Your task to perform on an android device: Search for the best books of all time on Goodreads Image 0: 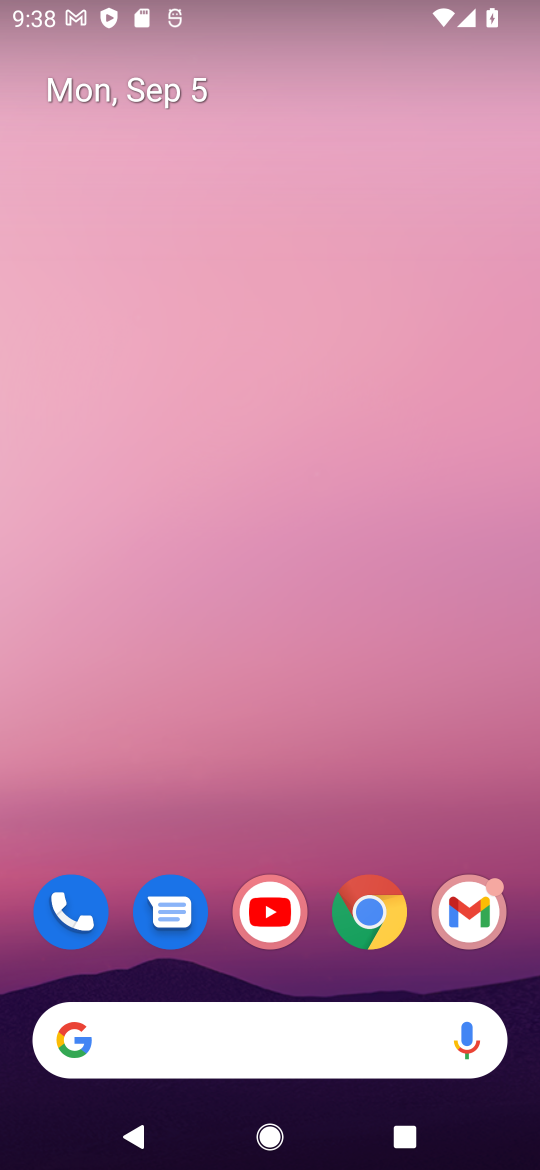
Step 0: click (540, 56)
Your task to perform on an android device: Search for the best books of all time on Goodreads Image 1: 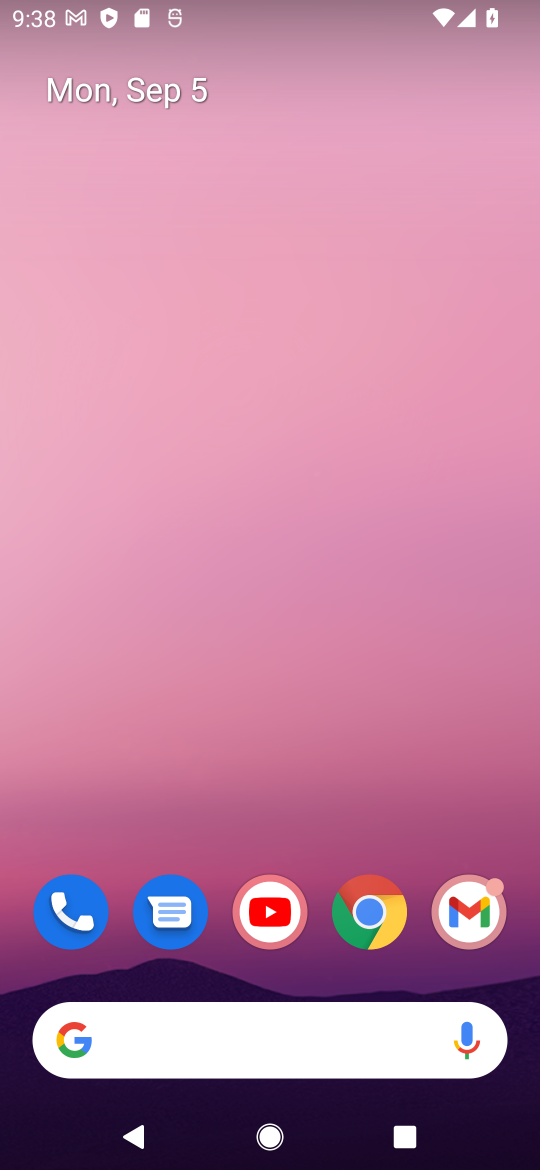
Step 1: click (368, 920)
Your task to perform on an android device: Search for the best books of all time on Goodreads Image 2: 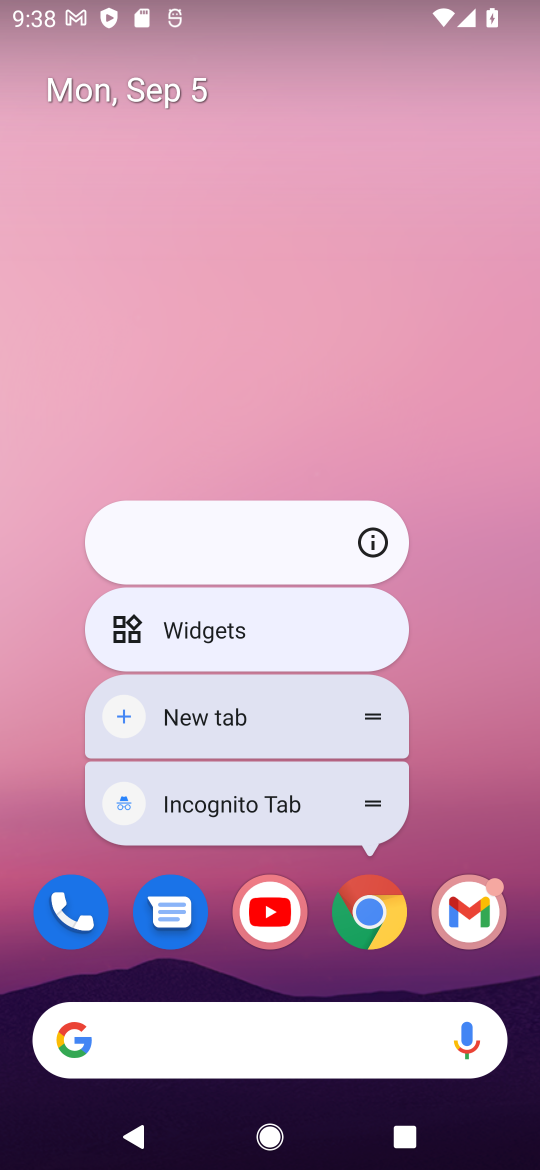
Step 2: click (368, 920)
Your task to perform on an android device: Search for the best books of all time on Goodreads Image 3: 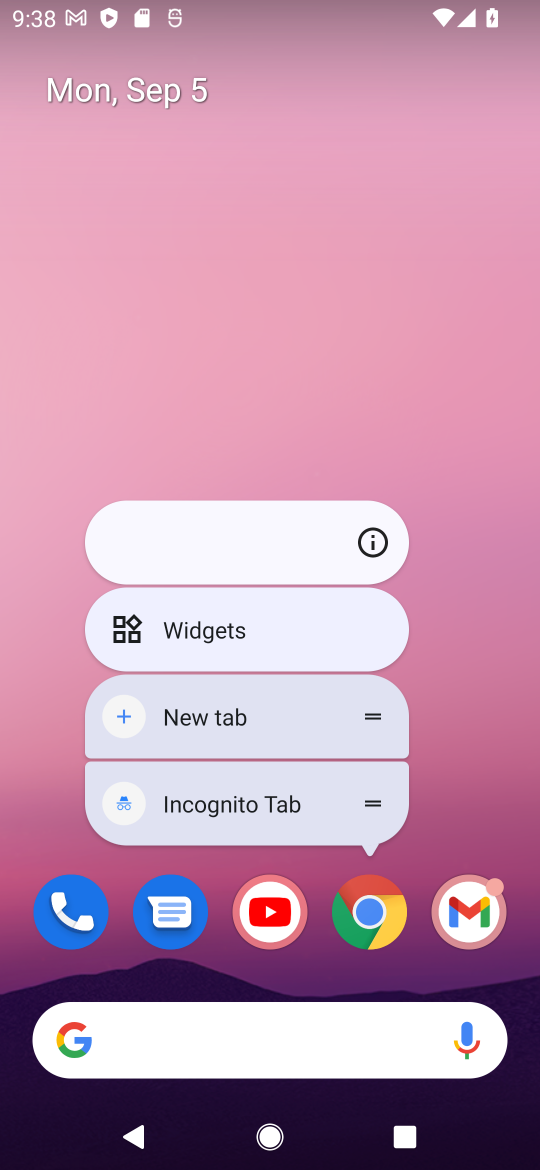
Step 3: click (368, 920)
Your task to perform on an android device: Search for the best books of all time on Goodreads Image 4: 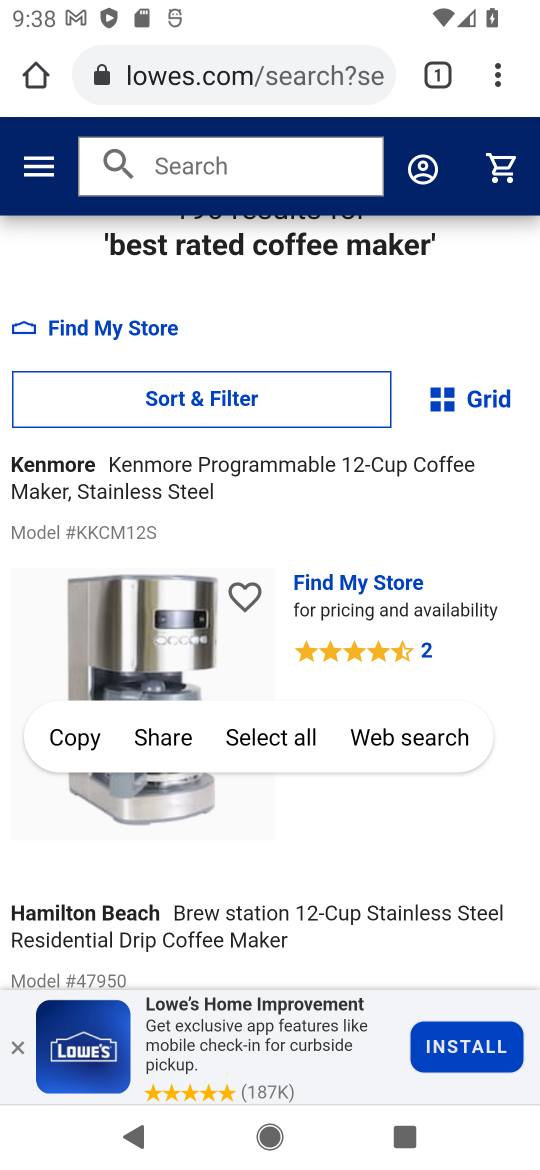
Step 4: click (191, 66)
Your task to perform on an android device: Search for the best books of all time on Goodreads Image 5: 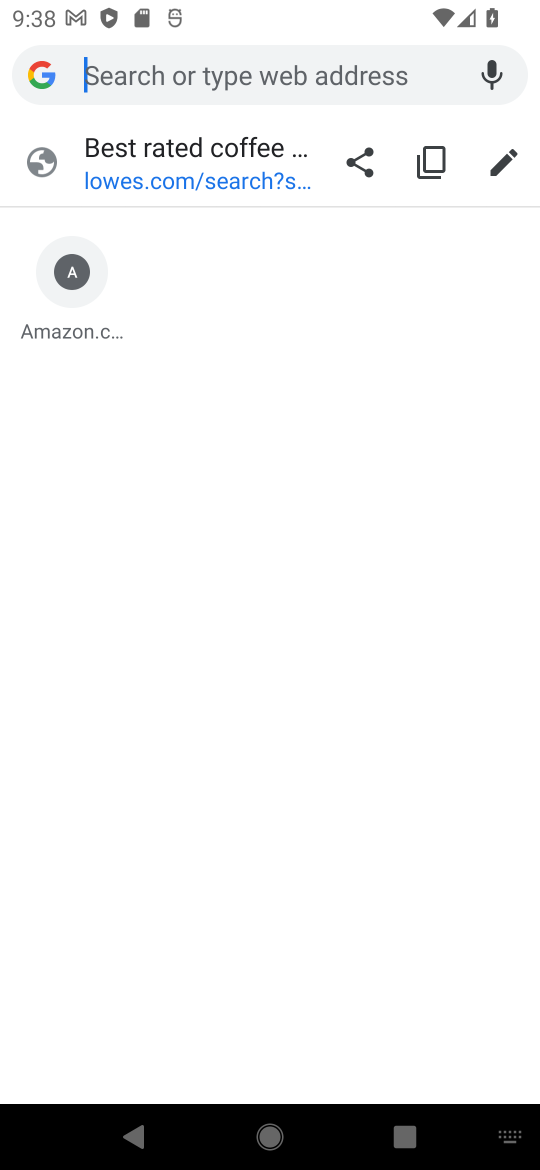
Step 5: type "goodreads"
Your task to perform on an android device: Search for the best books of all time on Goodreads Image 6: 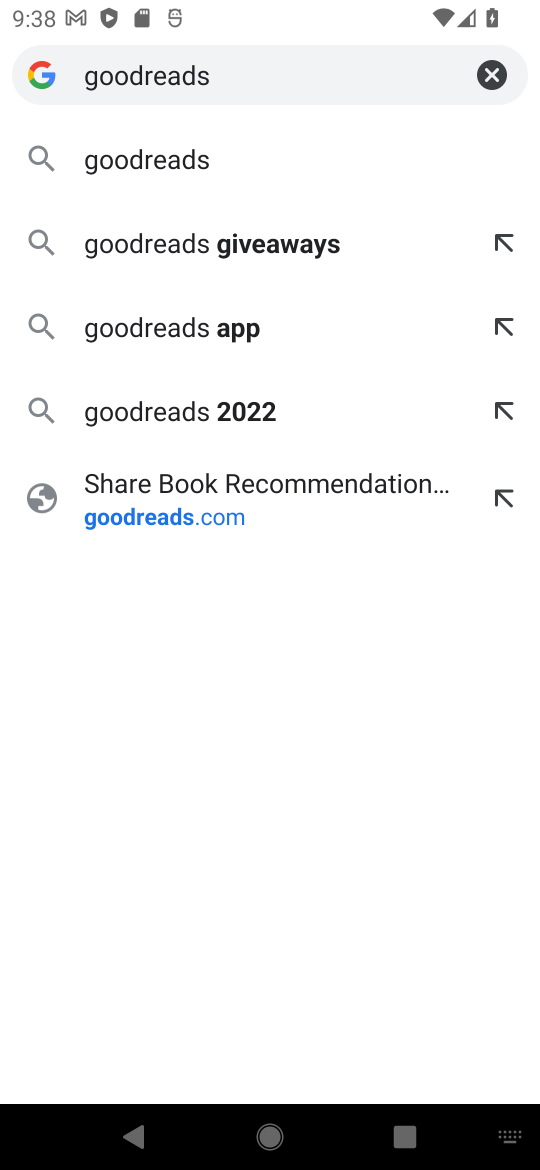
Step 6: click (95, 176)
Your task to perform on an android device: Search for the best books of all time on Goodreads Image 7: 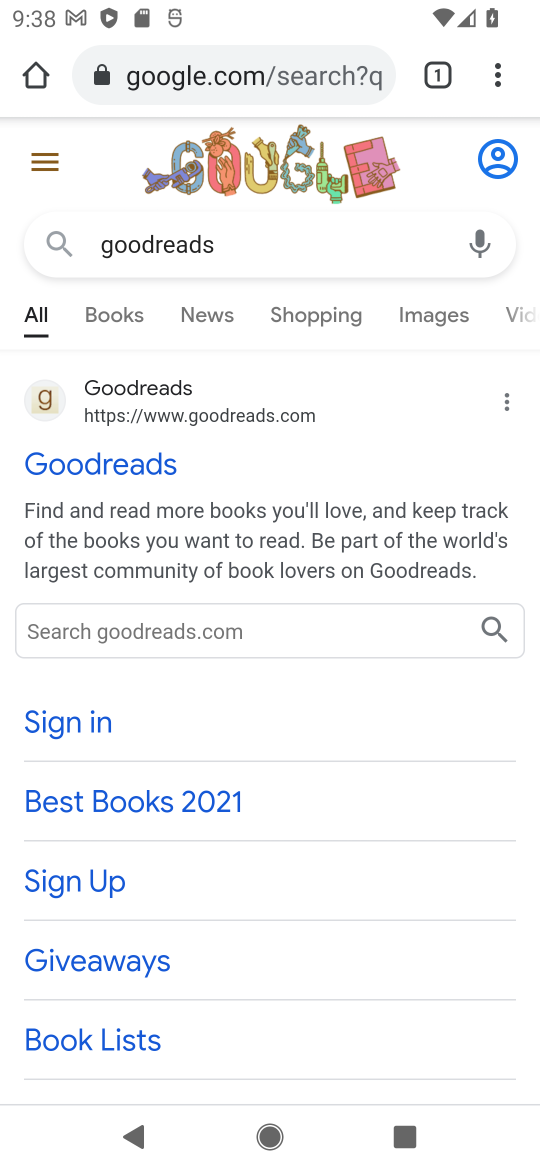
Step 7: drag from (438, 1161) to (483, 908)
Your task to perform on an android device: Search for the best books of all time on Goodreads Image 8: 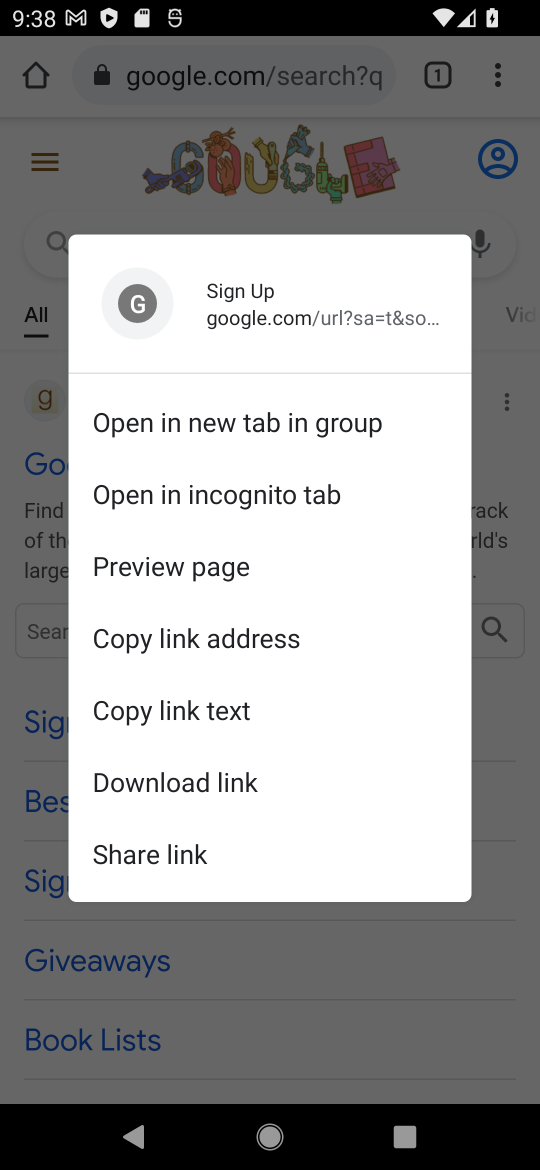
Step 8: click (496, 723)
Your task to perform on an android device: Search for the best books of all time on Goodreads Image 9: 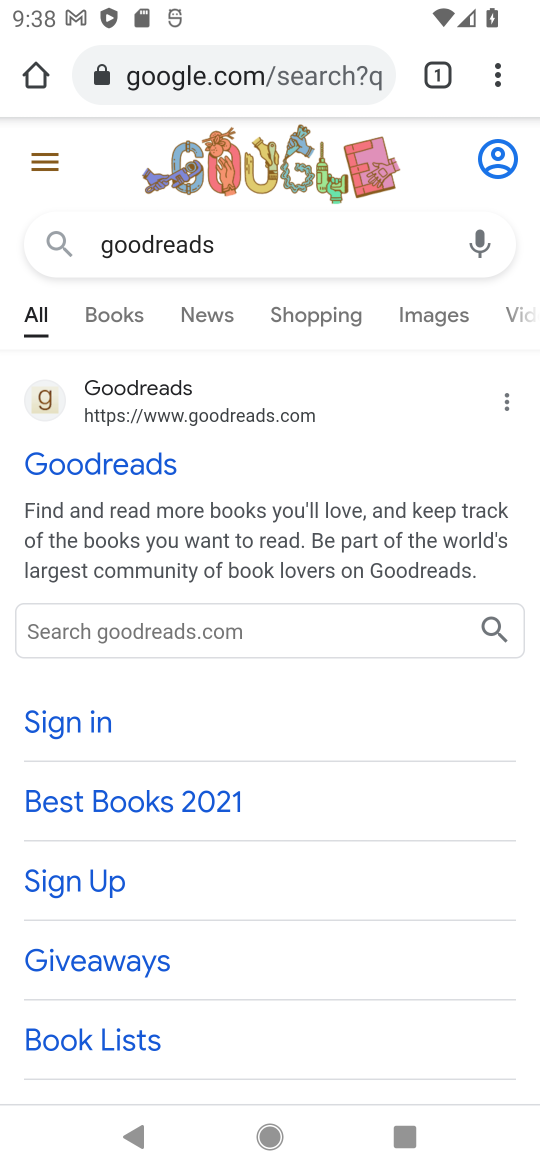
Step 9: click (75, 471)
Your task to perform on an android device: Search for the best books of all time on Goodreads Image 10: 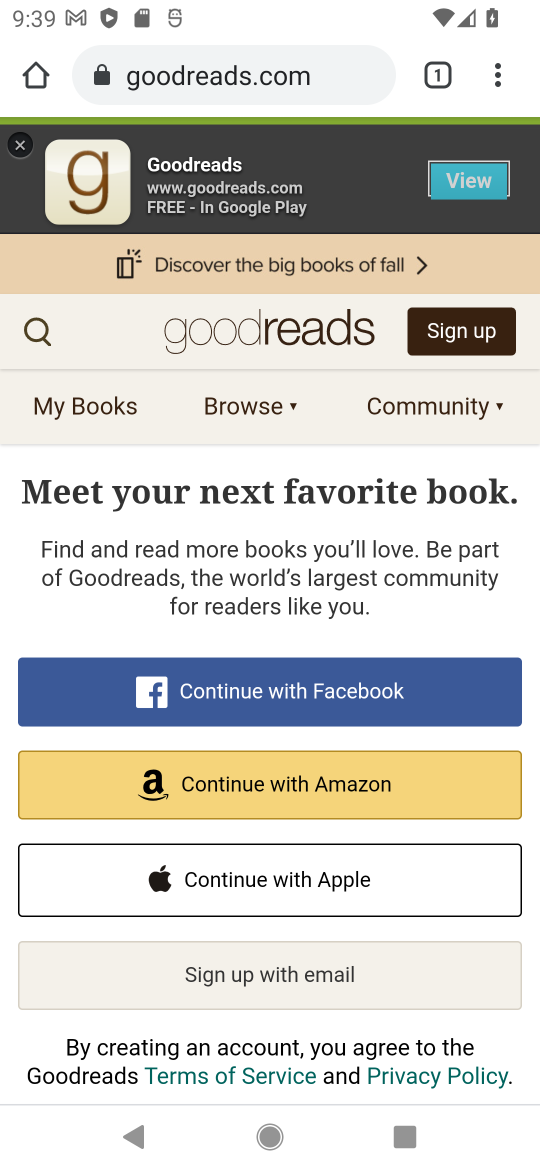
Step 10: click (40, 339)
Your task to perform on an android device: Search for the best books of all time on Goodreads Image 11: 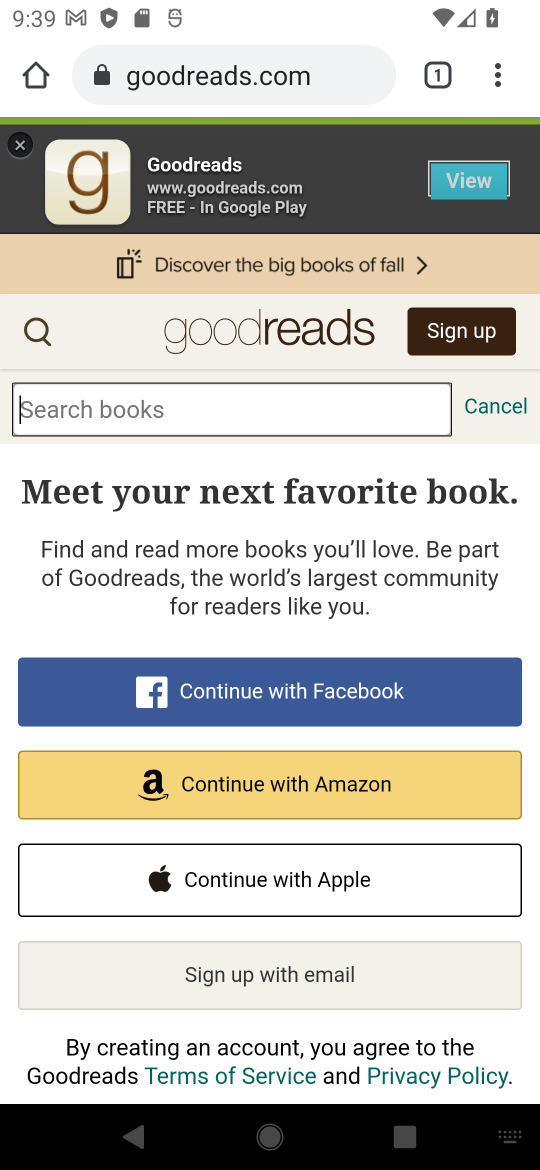
Step 11: type "best books of all time "
Your task to perform on an android device: Search for the best books of all time on Goodreads Image 12: 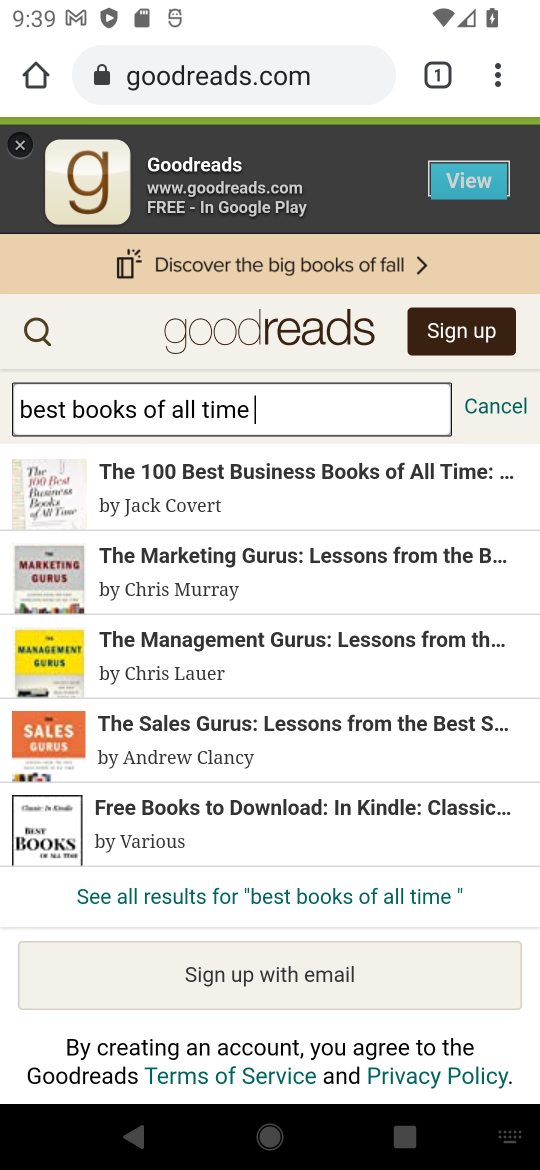
Step 12: task complete